Your task to perform on an android device: Open wifi settings Image 0: 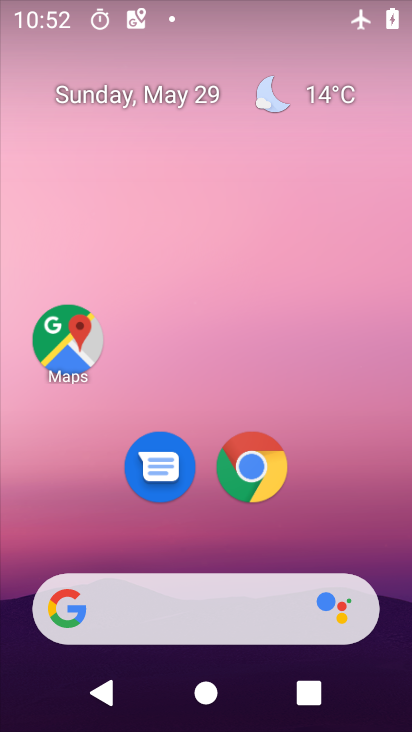
Step 0: drag from (208, 539) to (185, 210)
Your task to perform on an android device: Open wifi settings Image 1: 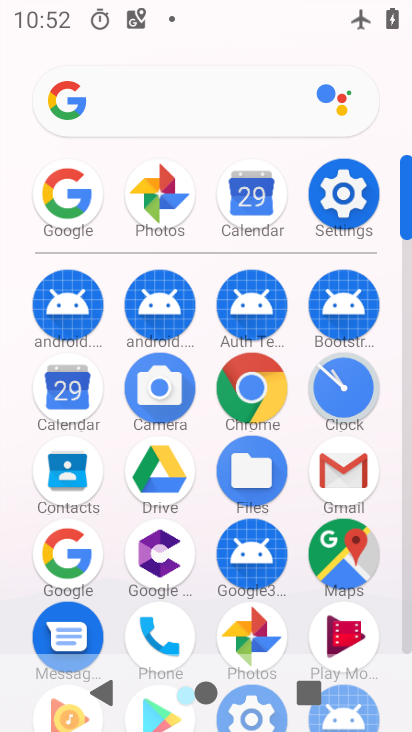
Step 1: click (337, 182)
Your task to perform on an android device: Open wifi settings Image 2: 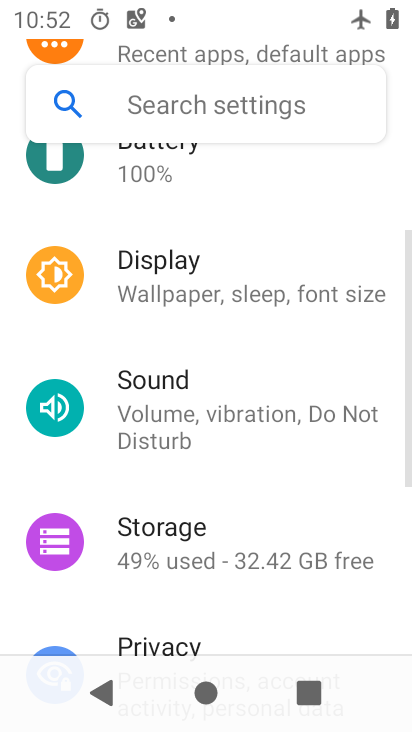
Step 2: drag from (241, 195) to (248, 525)
Your task to perform on an android device: Open wifi settings Image 3: 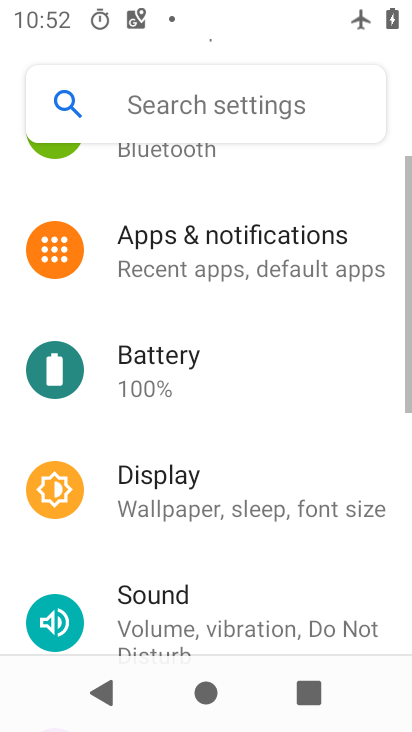
Step 3: drag from (212, 308) to (224, 570)
Your task to perform on an android device: Open wifi settings Image 4: 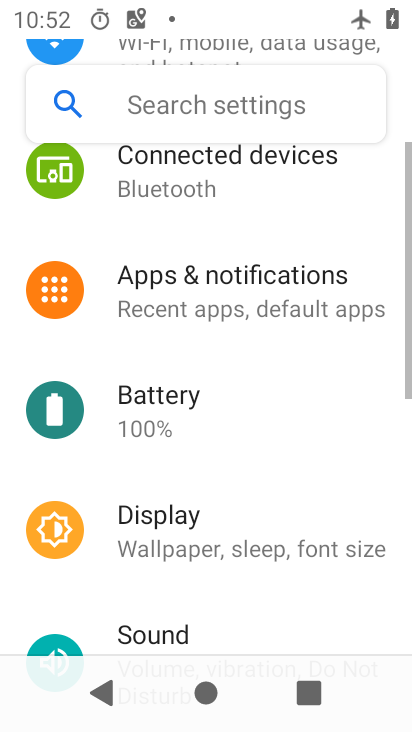
Step 4: drag from (217, 314) to (231, 606)
Your task to perform on an android device: Open wifi settings Image 5: 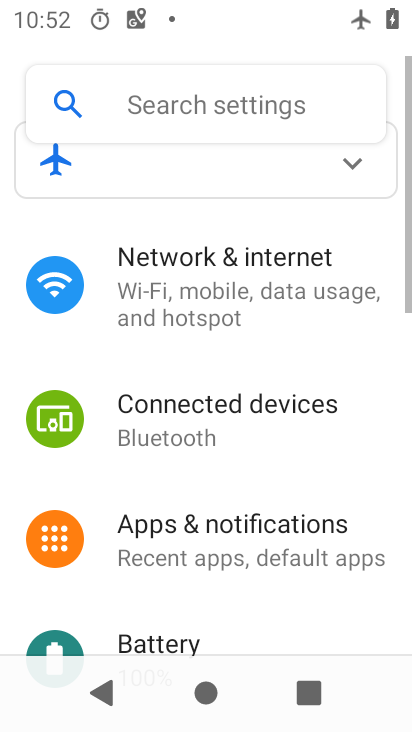
Step 5: drag from (222, 226) to (222, 477)
Your task to perform on an android device: Open wifi settings Image 6: 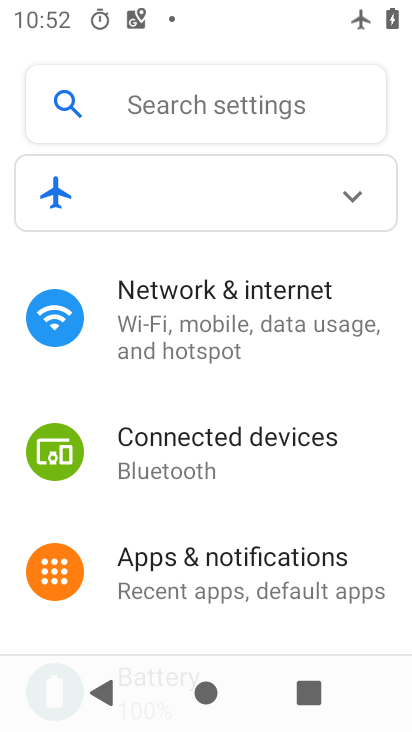
Step 6: click (193, 311)
Your task to perform on an android device: Open wifi settings Image 7: 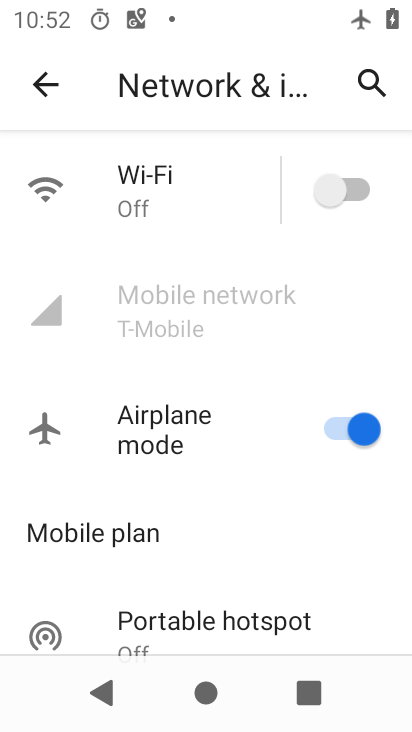
Step 7: click (142, 167)
Your task to perform on an android device: Open wifi settings Image 8: 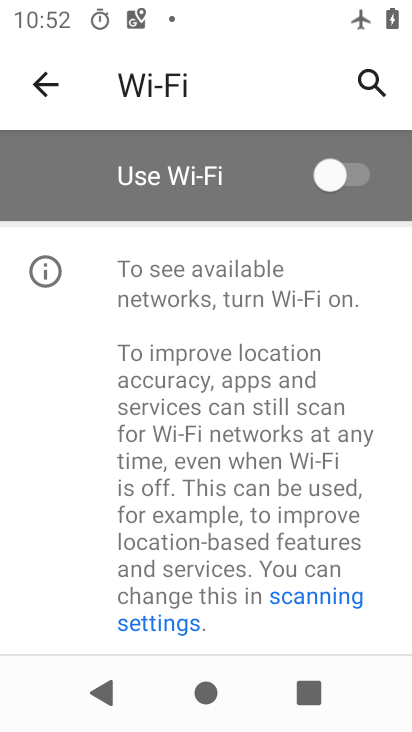
Step 8: task complete